Your task to perform on an android device: Go to Android settings Image 0: 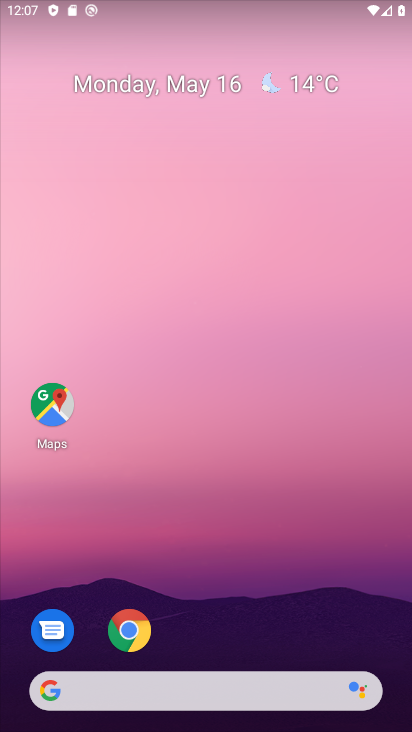
Step 0: drag from (243, 651) to (250, 150)
Your task to perform on an android device: Go to Android settings Image 1: 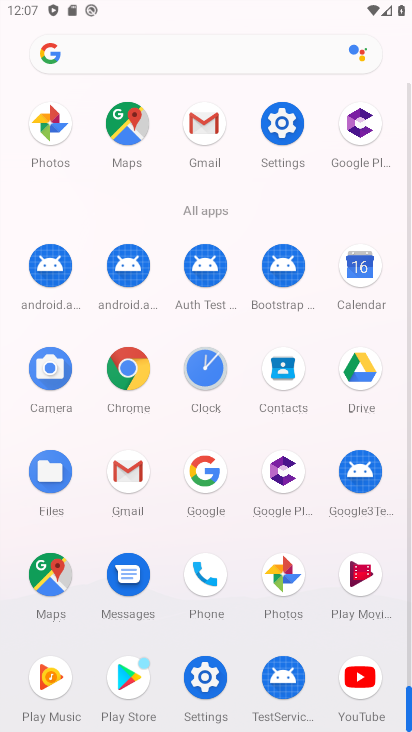
Step 1: click (273, 112)
Your task to perform on an android device: Go to Android settings Image 2: 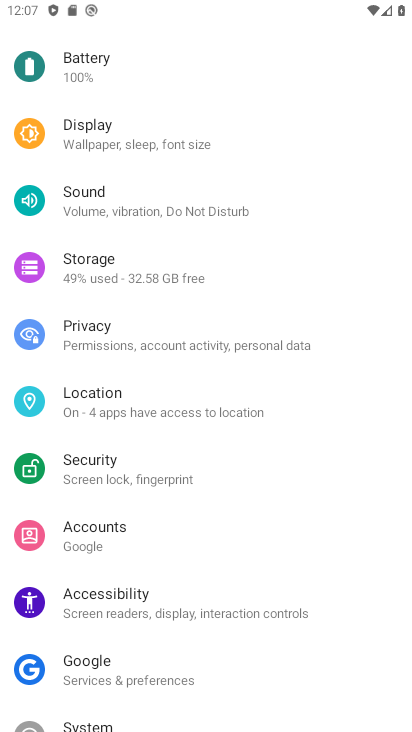
Step 2: task complete